Your task to perform on an android device: Open Yahoo.com Image 0: 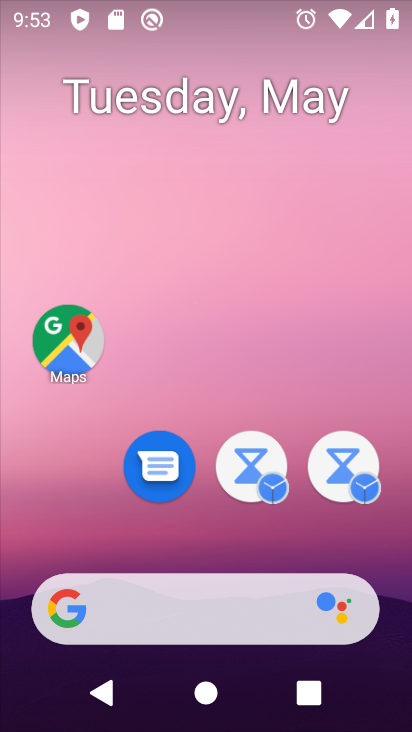
Step 0: drag from (349, 580) to (275, 86)
Your task to perform on an android device: Open Yahoo.com Image 1: 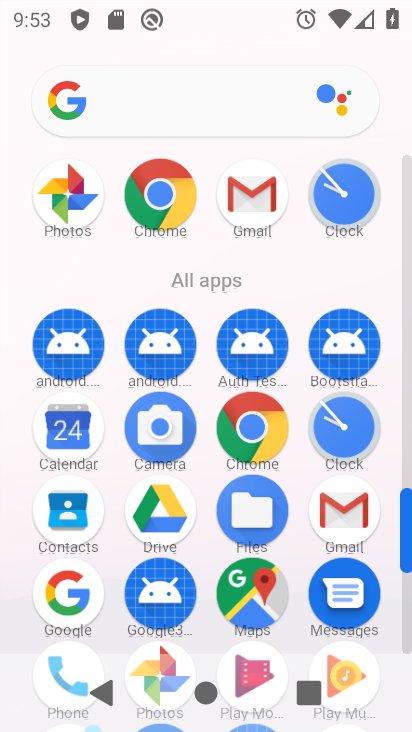
Step 1: click (155, 179)
Your task to perform on an android device: Open Yahoo.com Image 2: 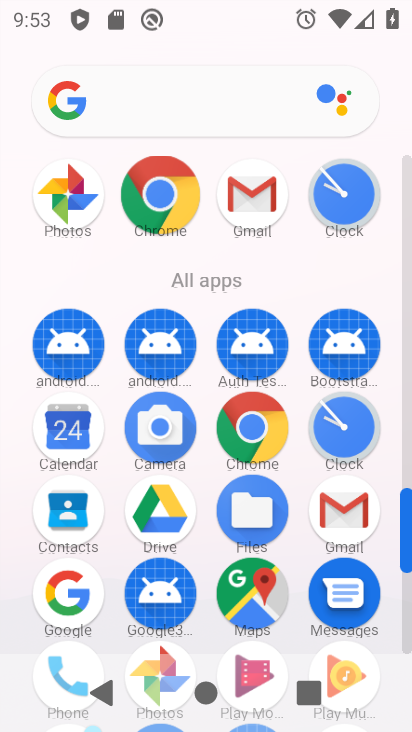
Step 2: click (156, 179)
Your task to perform on an android device: Open Yahoo.com Image 3: 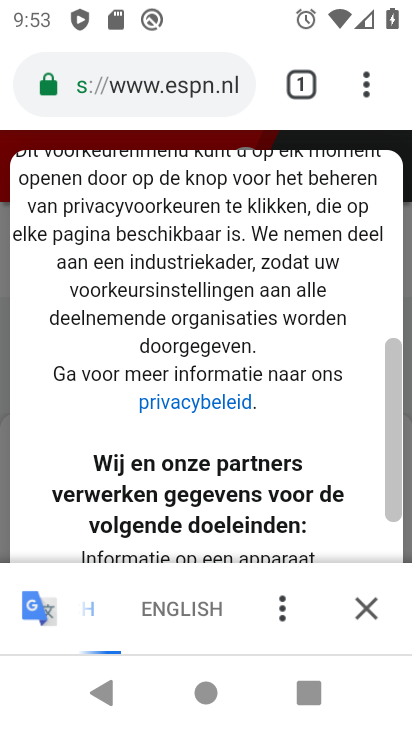
Step 3: drag from (361, 85) to (82, 169)
Your task to perform on an android device: Open Yahoo.com Image 4: 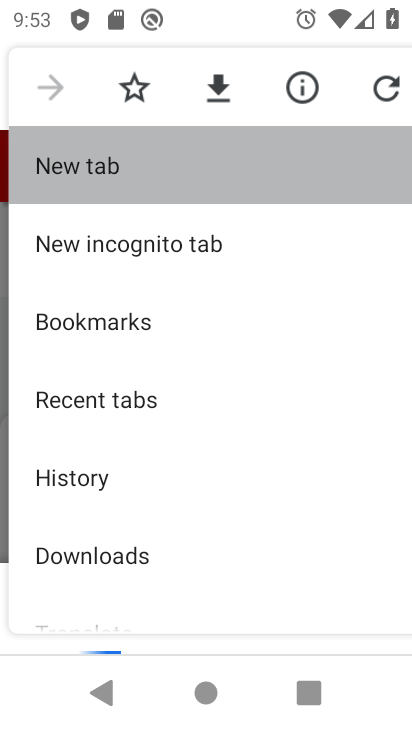
Step 4: click (82, 169)
Your task to perform on an android device: Open Yahoo.com Image 5: 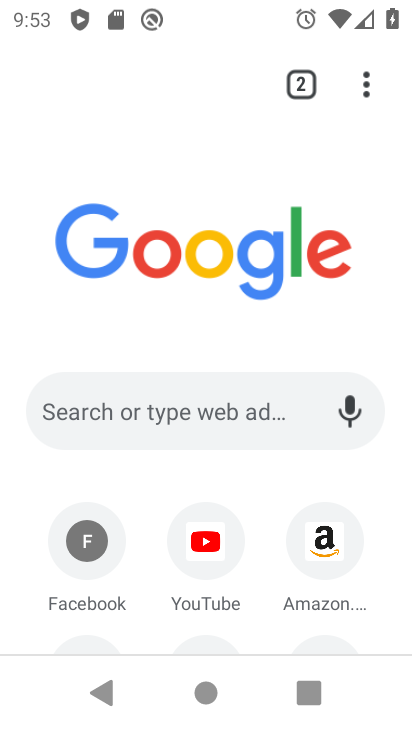
Step 5: drag from (256, 545) to (259, 203)
Your task to perform on an android device: Open Yahoo.com Image 6: 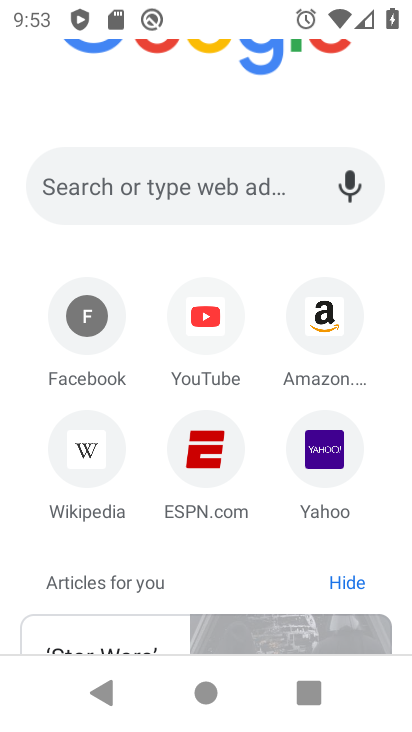
Step 6: drag from (262, 436) to (264, 169)
Your task to perform on an android device: Open Yahoo.com Image 7: 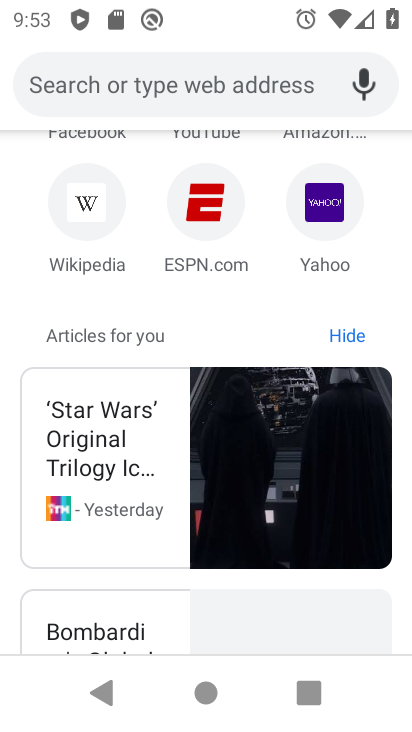
Step 7: drag from (259, 455) to (271, 119)
Your task to perform on an android device: Open Yahoo.com Image 8: 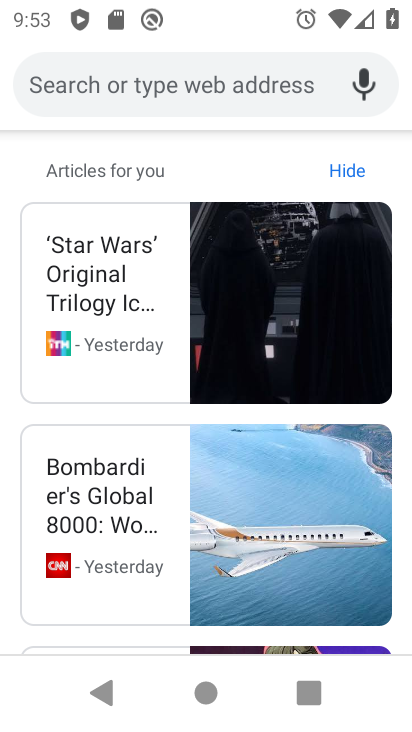
Step 8: drag from (232, 240) to (279, 517)
Your task to perform on an android device: Open Yahoo.com Image 9: 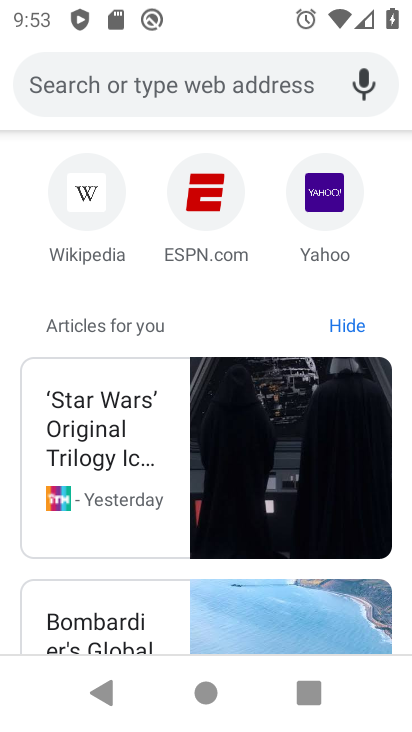
Step 9: drag from (258, 278) to (277, 587)
Your task to perform on an android device: Open Yahoo.com Image 10: 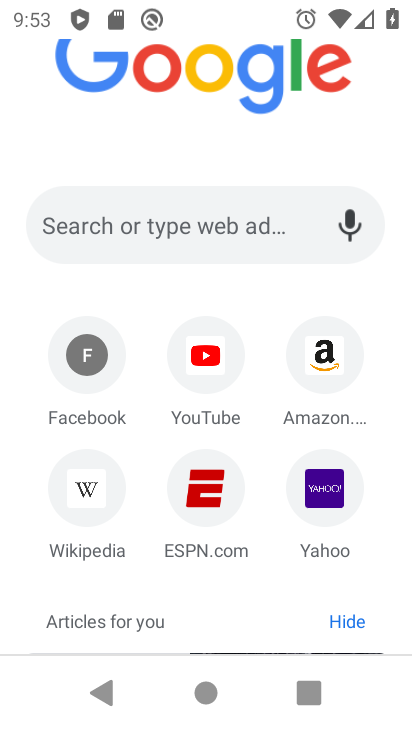
Step 10: click (325, 495)
Your task to perform on an android device: Open Yahoo.com Image 11: 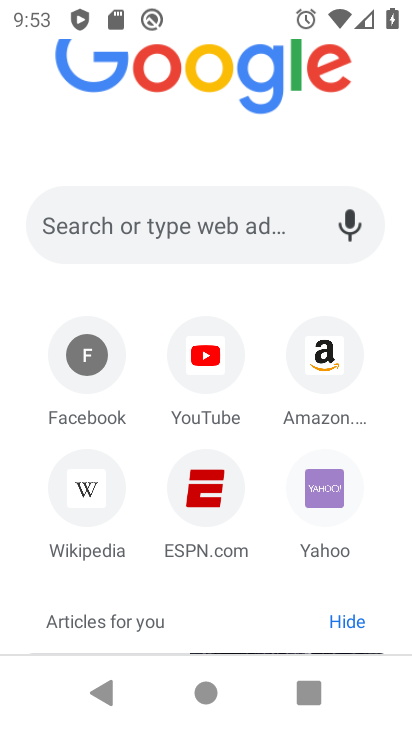
Step 11: click (330, 485)
Your task to perform on an android device: Open Yahoo.com Image 12: 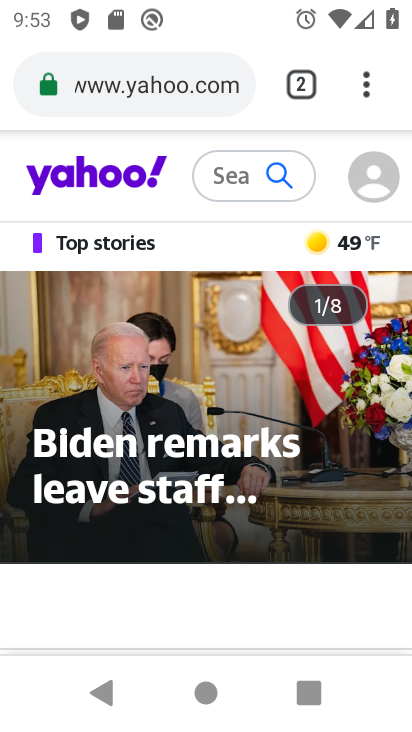
Step 12: task complete